Your task to perform on an android device: What's the weather going to be this weekend? Image 0: 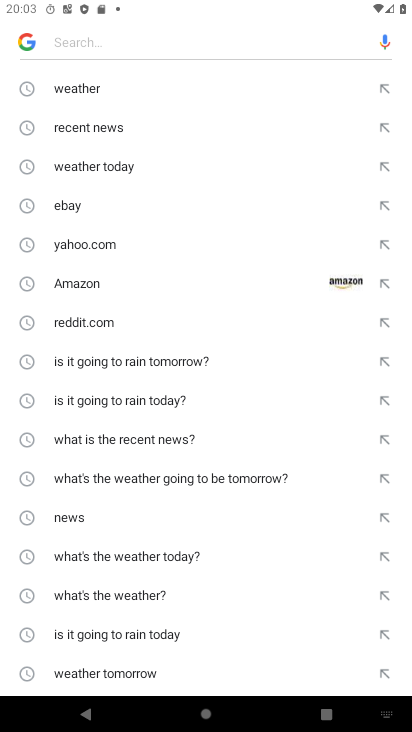
Step 0: press home button
Your task to perform on an android device: What's the weather going to be this weekend? Image 1: 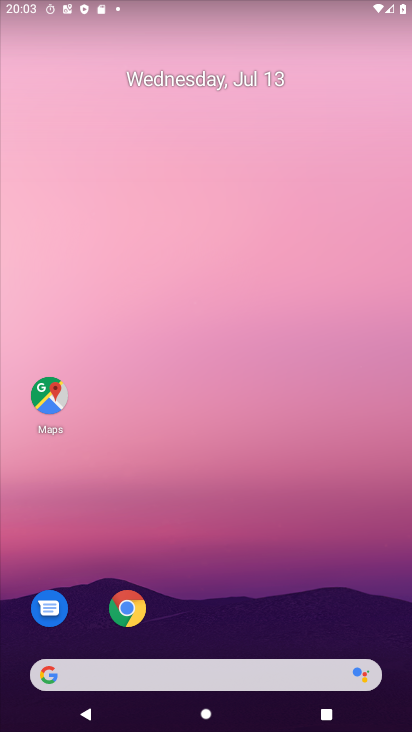
Step 1: click (248, 681)
Your task to perform on an android device: What's the weather going to be this weekend? Image 2: 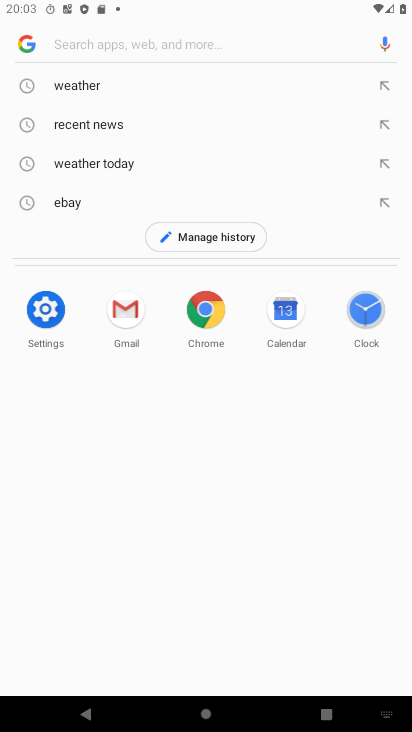
Step 2: click (82, 84)
Your task to perform on an android device: What's the weather going to be this weekend? Image 3: 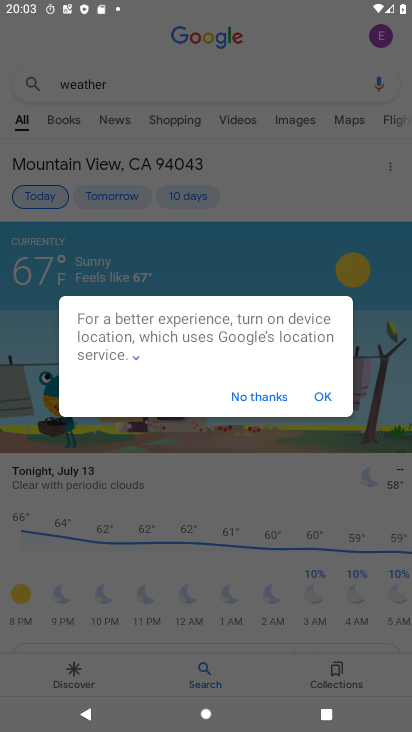
Step 3: click (322, 397)
Your task to perform on an android device: What's the weather going to be this weekend? Image 4: 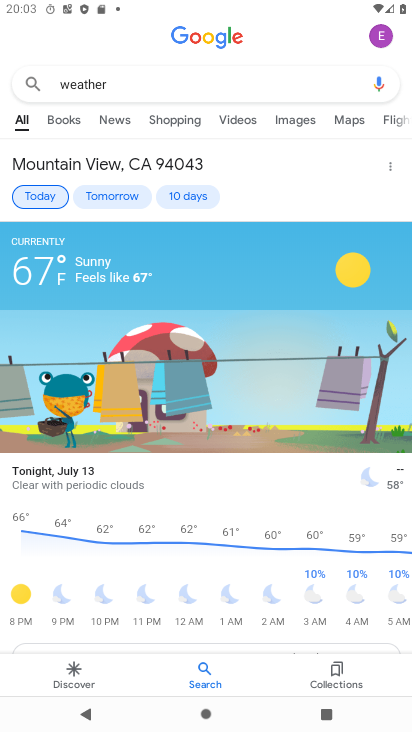
Step 4: click (198, 192)
Your task to perform on an android device: What's the weather going to be this weekend? Image 5: 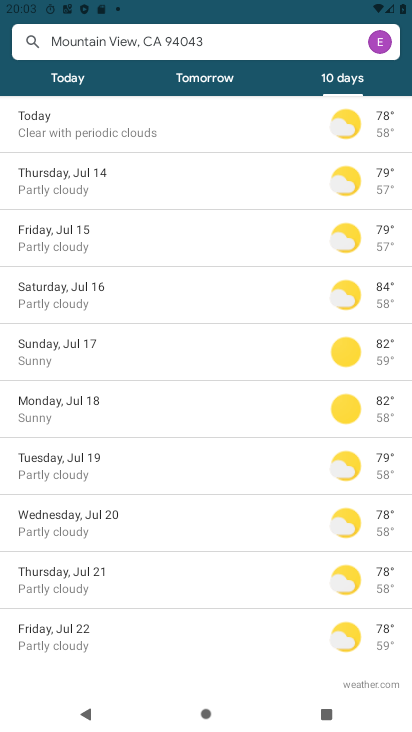
Step 5: task complete